Your task to perform on an android device: What's the weather going to be tomorrow? Image 0: 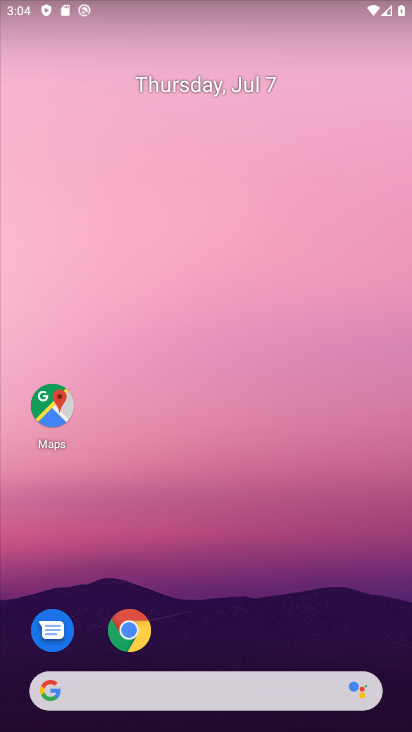
Step 0: click (230, 686)
Your task to perform on an android device: What's the weather going to be tomorrow? Image 1: 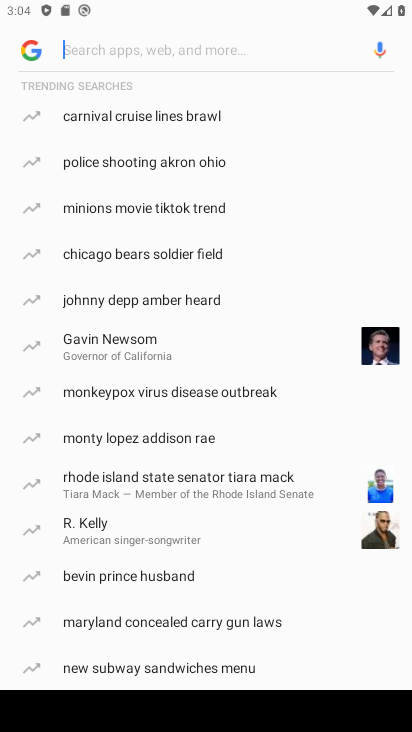
Step 1: click (220, 41)
Your task to perform on an android device: What's the weather going to be tomorrow? Image 2: 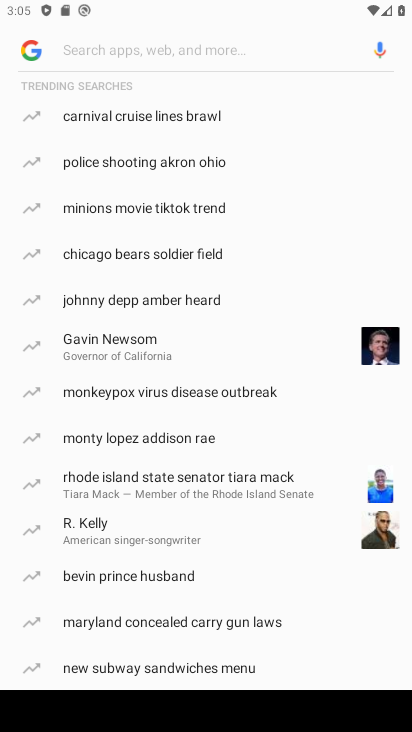
Step 2: type "weather going to be tomorrow"
Your task to perform on an android device: What's the weather going to be tomorrow? Image 3: 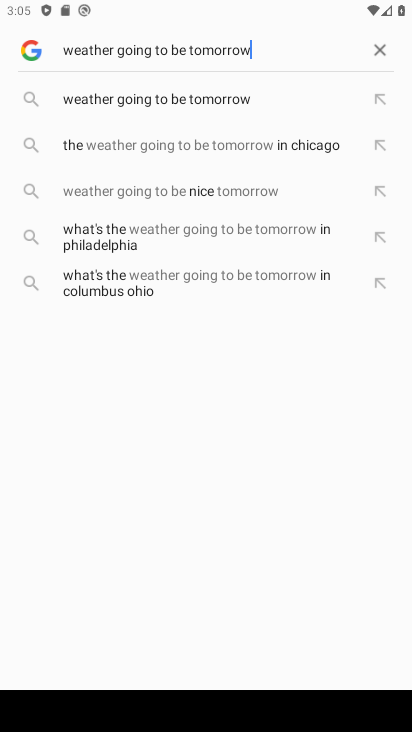
Step 3: click (198, 98)
Your task to perform on an android device: What's the weather going to be tomorrow? Image 4: 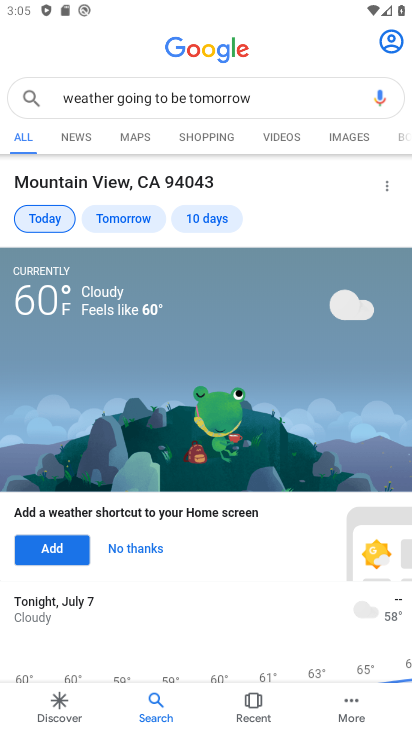
Step 4: click (137, 221)
Your task to perform on an android device: What's the weather going to be tomorrow? Image 5: 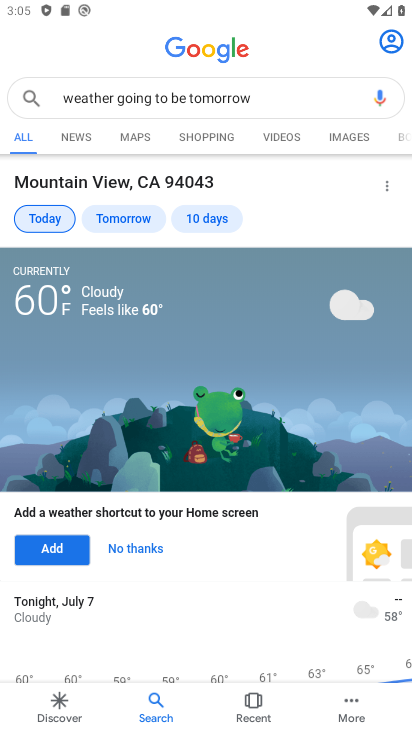
Step 5: click (140, 215)
Your task to perform on an android device: What's the weather going to be tomorrow? Image 6: 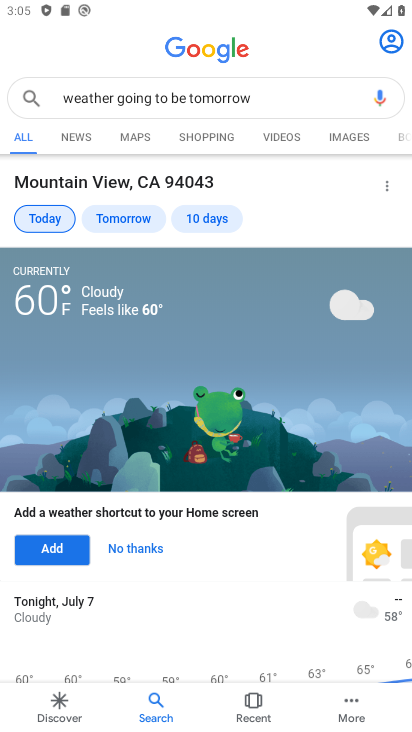
Step 6: click (116, 224)
Your task to perform on an android device: What's the weather going to be tomorrow? Image 7: 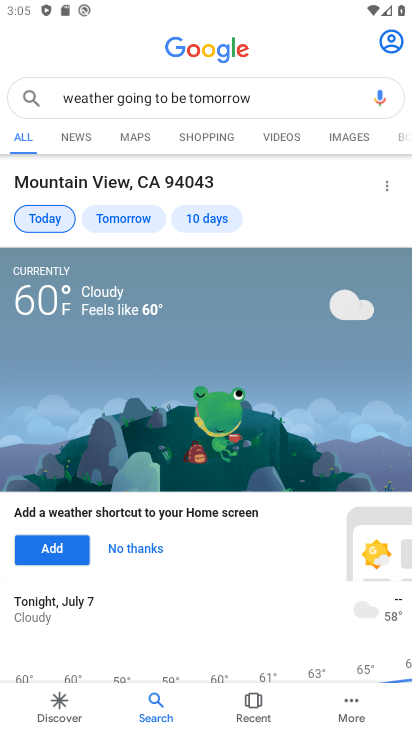
Step 7: click (116, 224)
Your task to perform on an android device: What's the weather going to be tomorrow? Image 8: 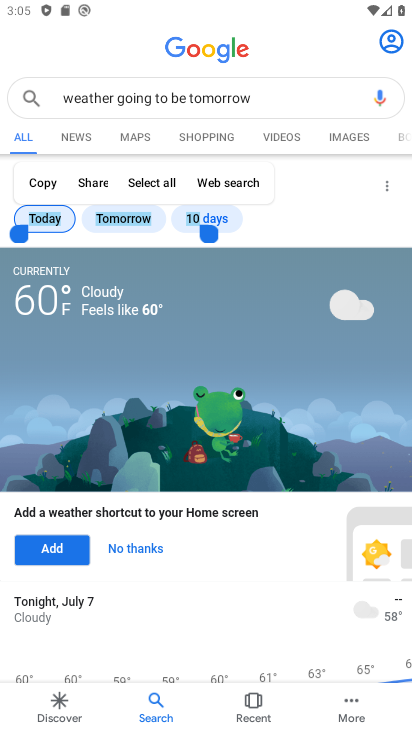
Step 8: task complete